Your task to perform on an android device: read, delete, or share a saved page in the chrome app Image 0: 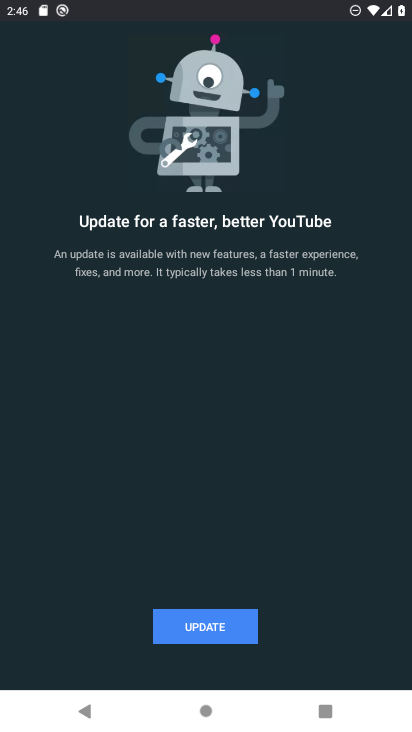
Step 0: press home button
Your task to perform on an android device: read, delete, or share a saved page in the chrome app Image 1: 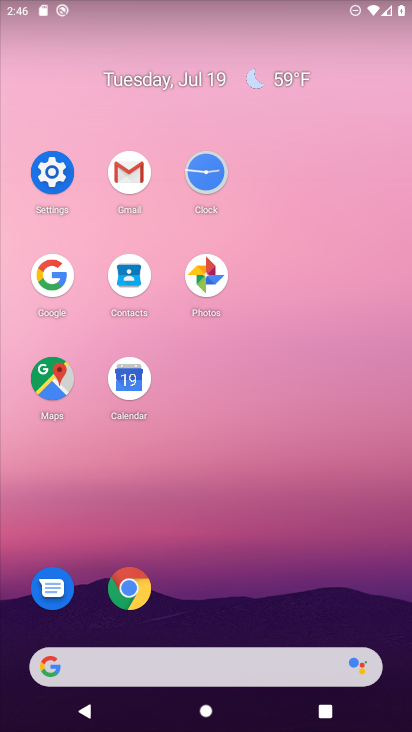
Step 1: click (131, 581)
Your task to perform on an android device: read, delete, or share a saved page in the chrome app Image 2: 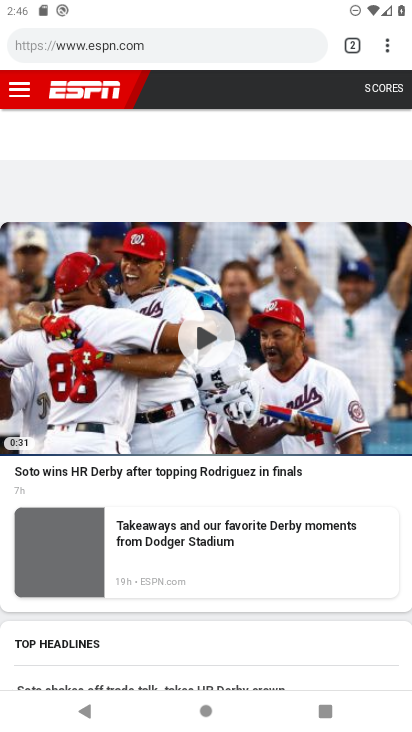
Step 2: click (384, 47)
Your task to perform on an android device: read, delete, or share a saved page in the chrome app Image 3: 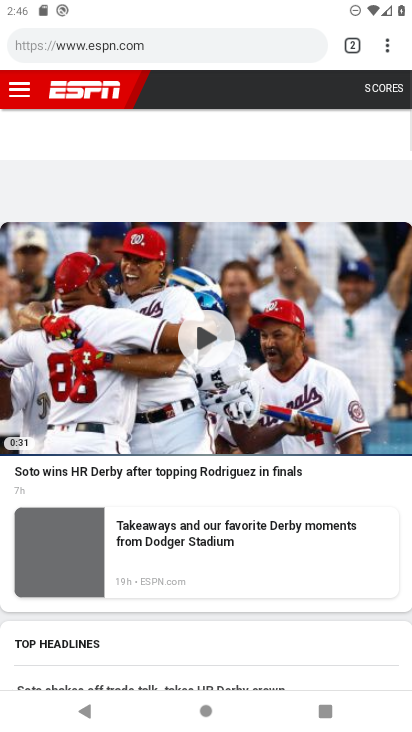
Step 3: click (395, 46)
Your task to perform on an android device: read, delete, or share a saved page in the chrome app Image 4: 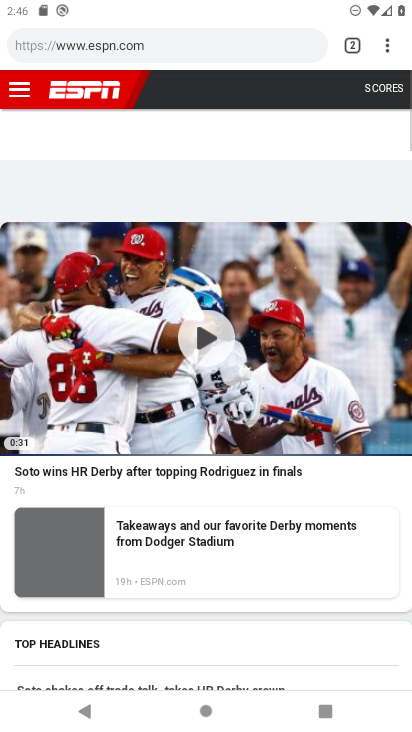
Step 4: click (382, 45)
Your task to perform on an android device: read, delete, or share a saved page in the chrome app Image 5: 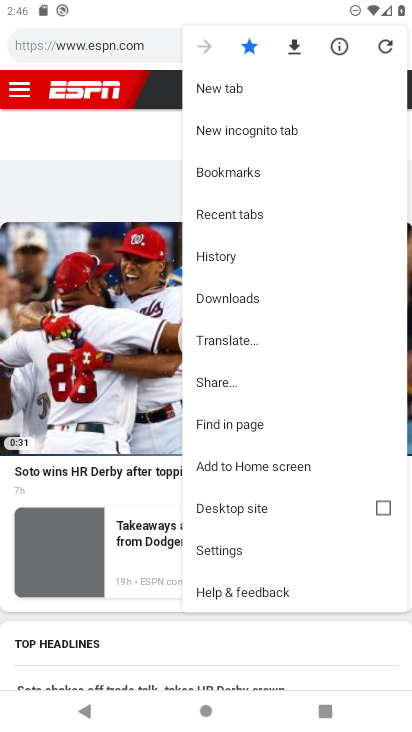
Step 5: click (274, 295)
Your task to perform on an android device: read, delete, or share a saved page in the chrome app Image 6: 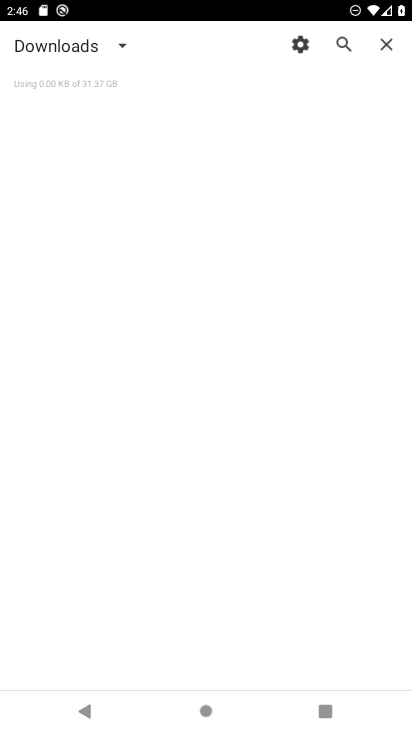
Step 6: task complete